Your task to perform on an android device: Go to Google maps Image 0: 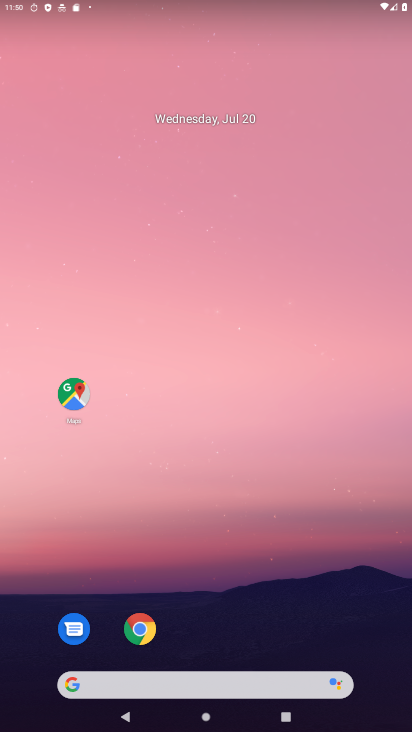
Step 0: drag from (113, 693) to (123, 81)
Your task to perform on an android device: Go to Google maps Image 1: 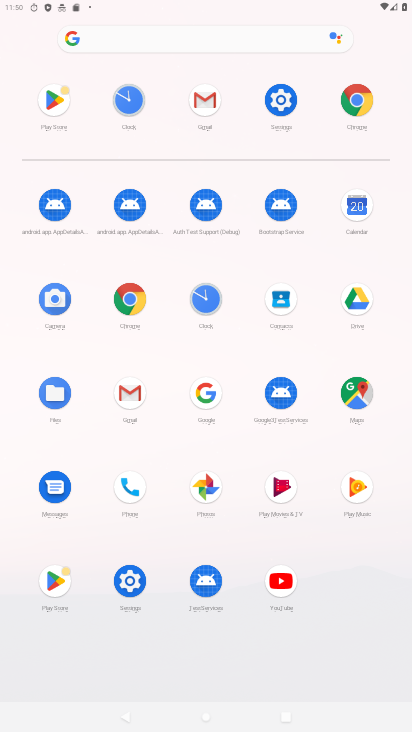
Step 1: click (343, 395)
Your task to perform on an android device: Go to Google maps Image 2: 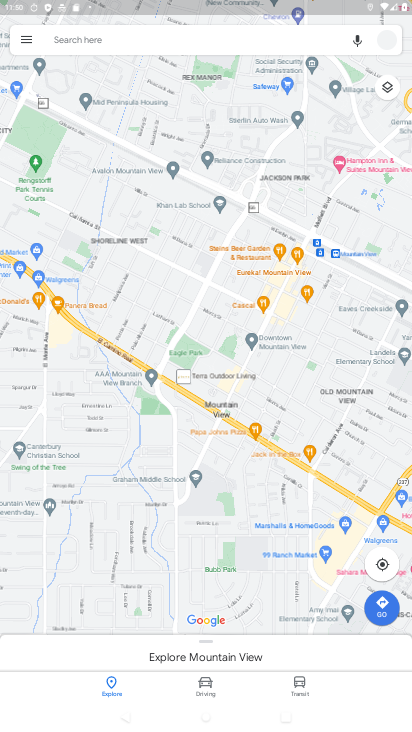
Step 2: task complete